Your task to perform on an android device: change notification settings in the gmail app Image 0: 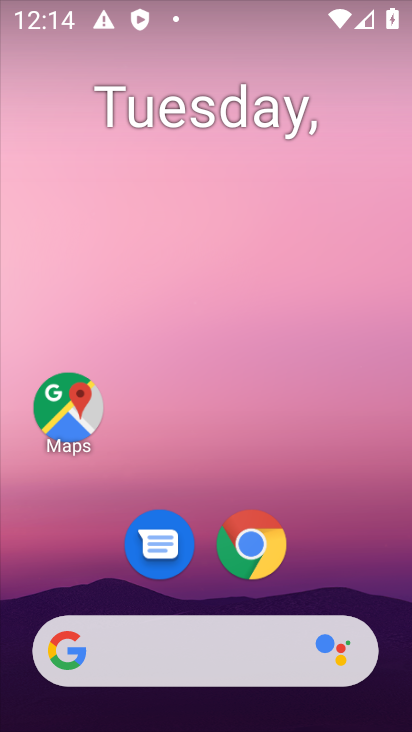
Step 0: drag from (305, 473) to (235, 65)
Your task to perform on an android device: change notification settings in the gmail app Image 1: 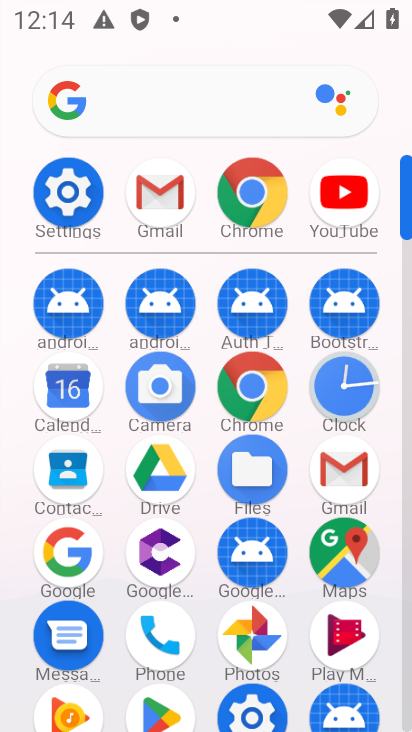
Step 1: click (343, 461)
Your task to perform on an android device: change notification settings in the gmail app Image 2: 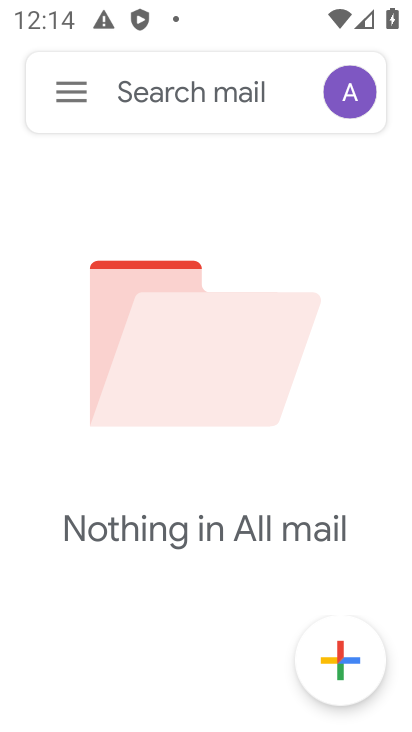
Step 2: click (58, 81)
Your task to perform on an android device: change notification settings in the gmail app Image 3: 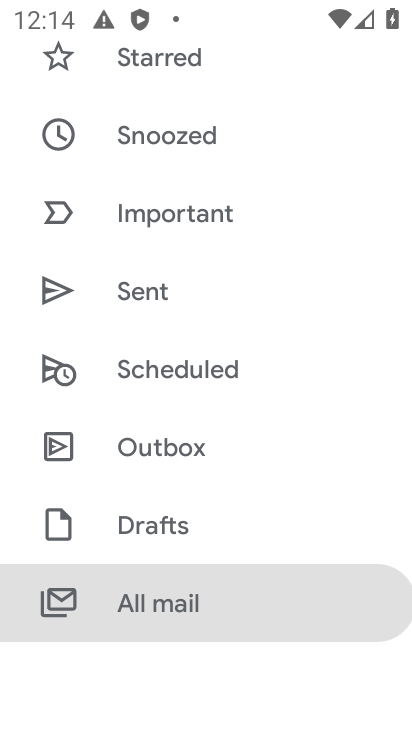
Step 3: drag from (286, 525) to (301, 11)
Your task to perform on an android device: change notification settings in the gmail app Image 4: 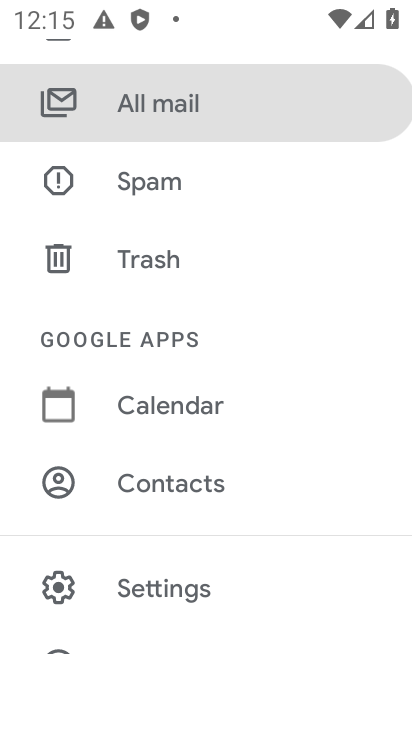
Step 4: click (119, 584)
Your task to perform on an android device: change notification settings in the gmail app Image 5: 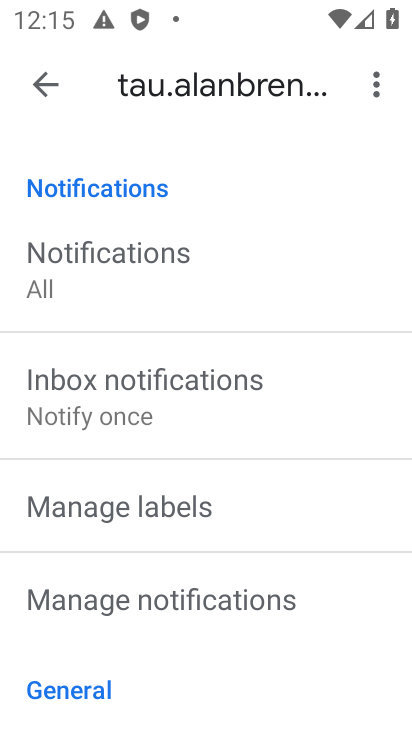
Step 5: click (151, 578)
Your task to perform on an android device: change notification settings in the gmail app Image 6: 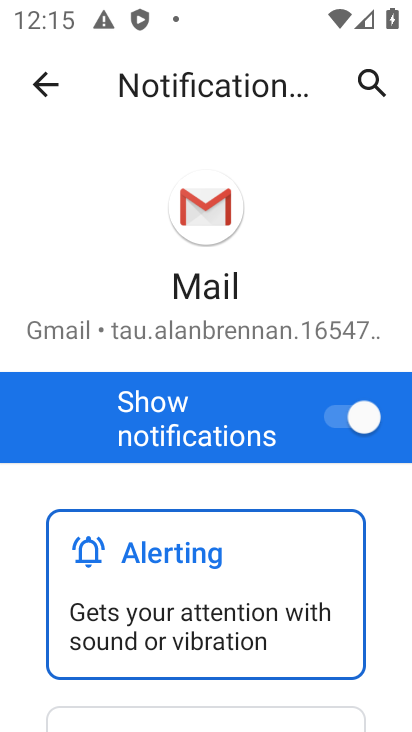
Step 6: click (336, 416)
Your task to perform on an android device: change notification settings in the gmail app Image 7: 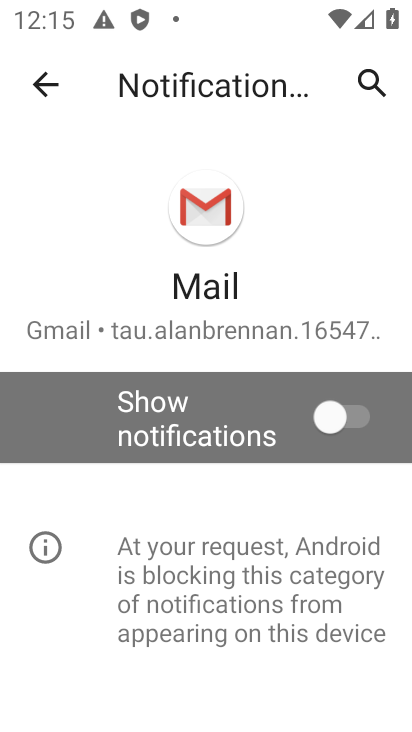
Step 7: task complete